Your task to perform on an android device: turn off notifications settings in the gmail app Image 0: 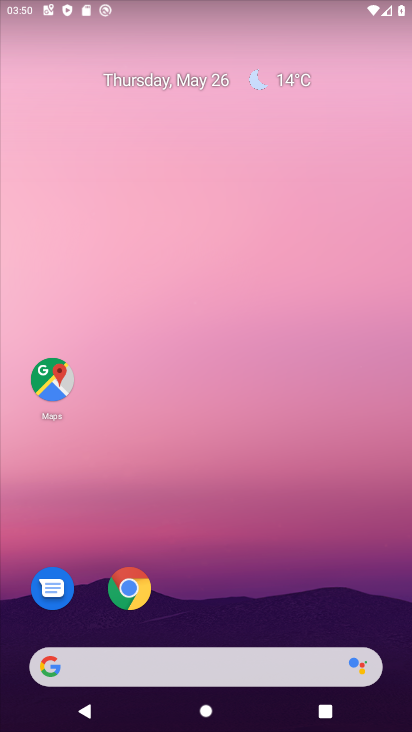
Step 0: drag from (279, 592) to (266, 88)
Your task to perform on an android device: turn off notifications settings in the gmail app Image 1: 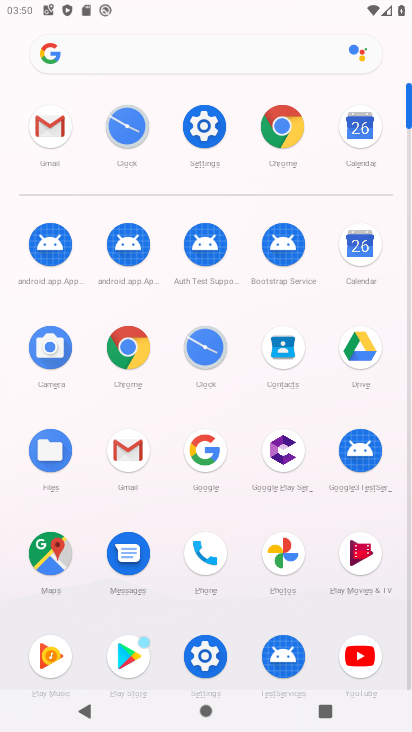
Step 1: click (60, 138)
Your task to perform on an android device: turn off notifications settings in the gmail app Image 2: 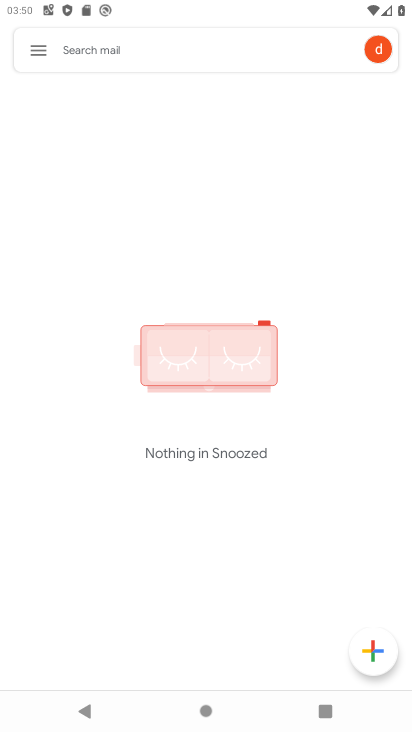
Step 2: click (32, 52)
Your task to perform on an android device: turn off notifications settings in the gmail app Image 3: 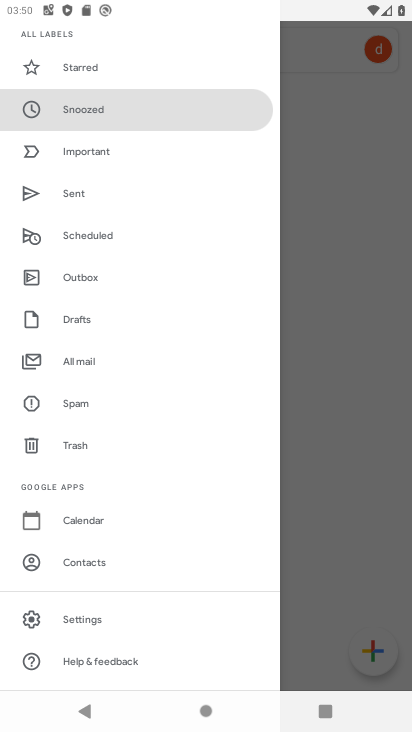
Step 3: click (108, 620)
Your task to perform on an android device: turn off notifications settings in the gmail app Image 4: 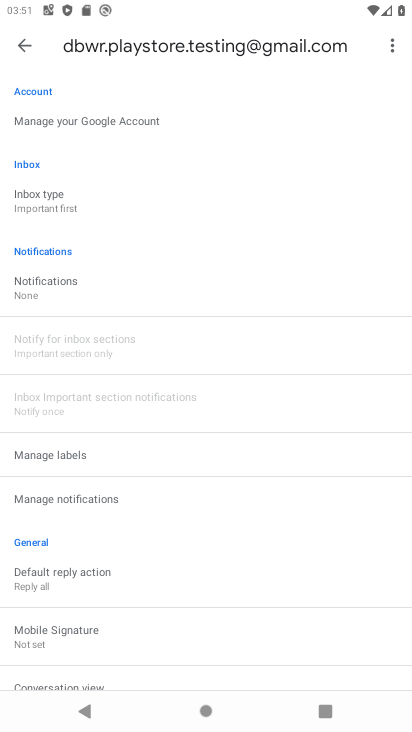
Step 4: click (114, 497)
Your task to perform on an android device: turn off notifications settings in the gmail app Image 5: 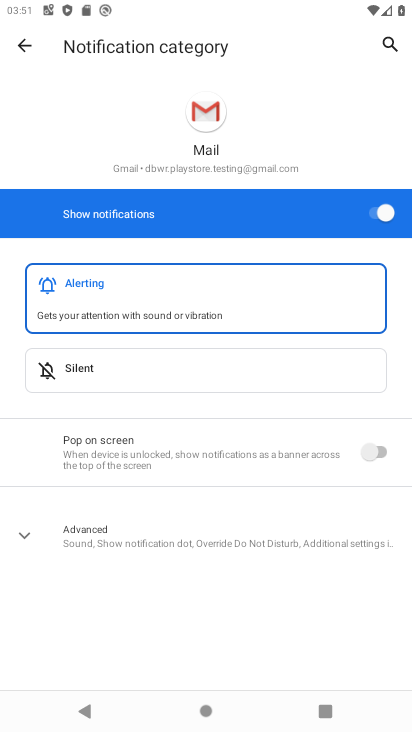
Step 5: click (366, 206)
Your task to perform on an android device: turn off notifications settings in the gmail app Image 6: 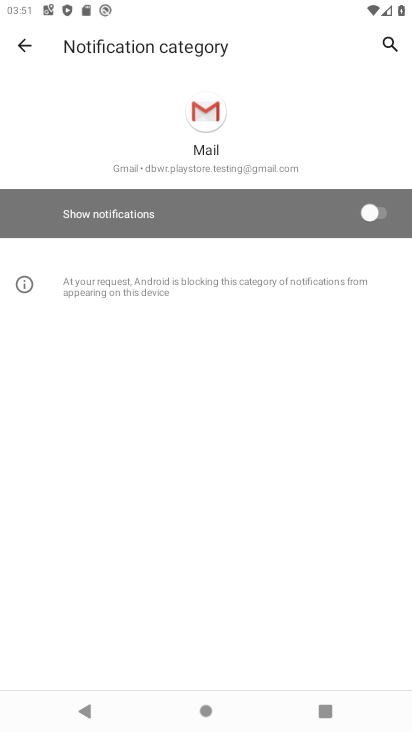
Step 6: task complete